Your task to perform on an android device: Clear the cart on ebay.com. Add asus zenbook to the cart on ebay.com Image 0: 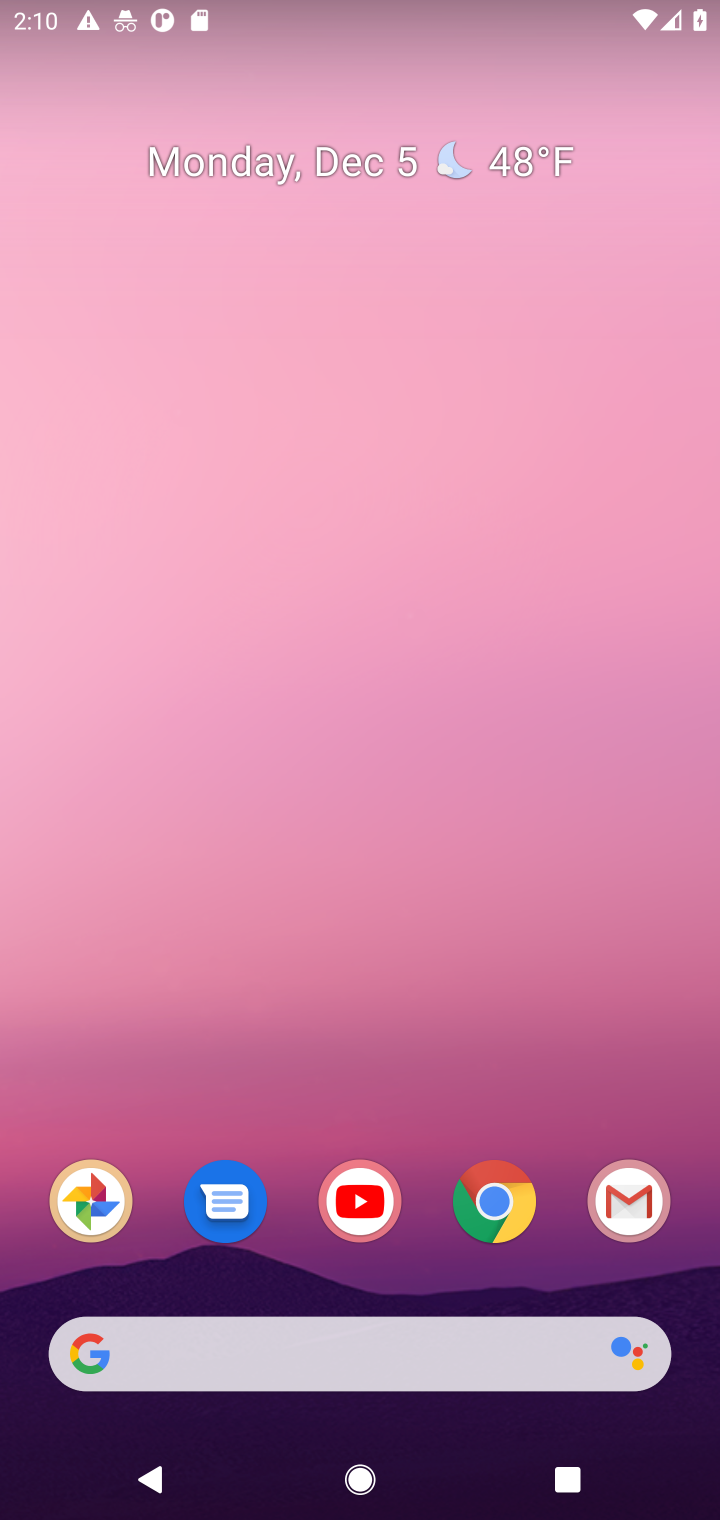
Step 0: click (506, 1212)
Your task to perform on an android device: Clear the cart on ebay.com. Add asus zenbook to the cart on ebay.com Image 1: 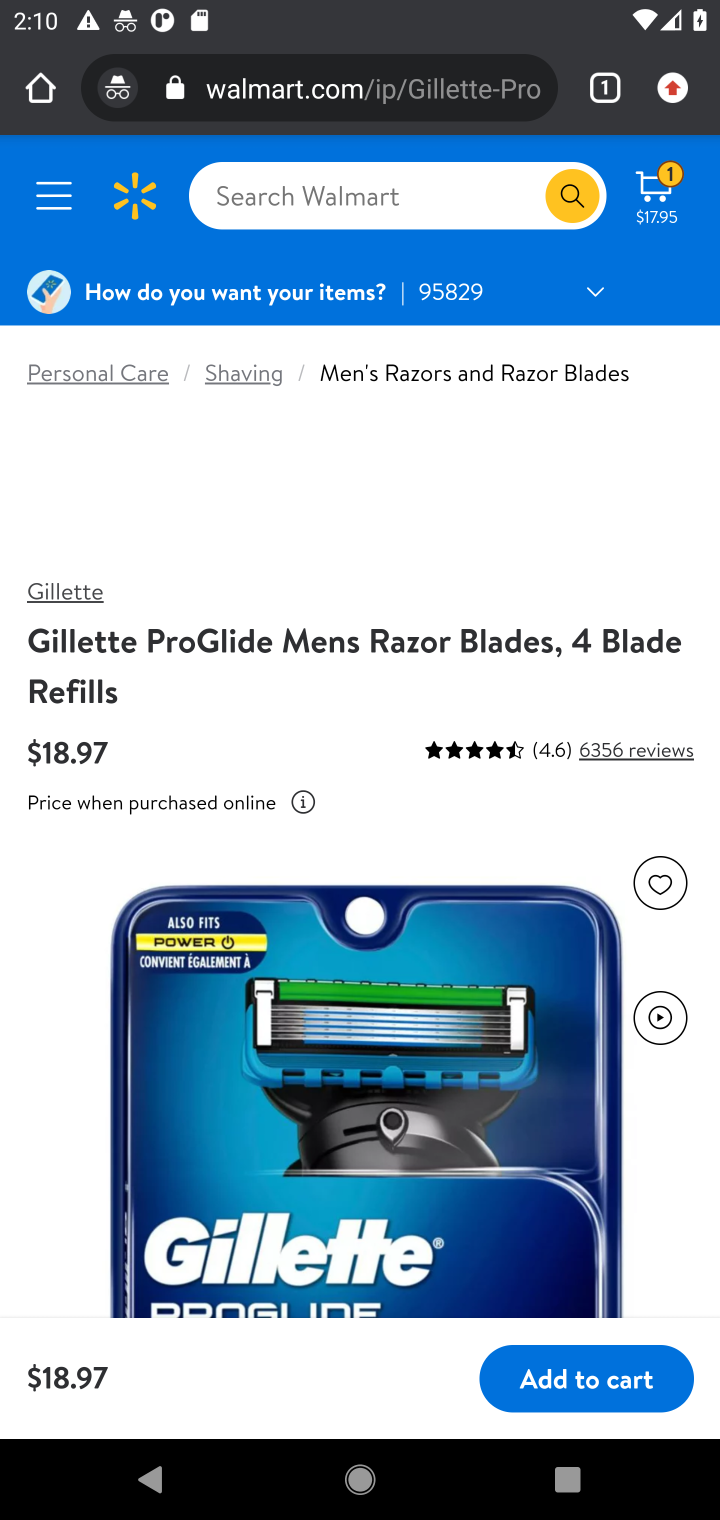
Step 1: click (393, 102)
Your task to perform on an android device: Clear the cart on ebay.com. Add asus zenbook to the cart on ebay.com Image 2: 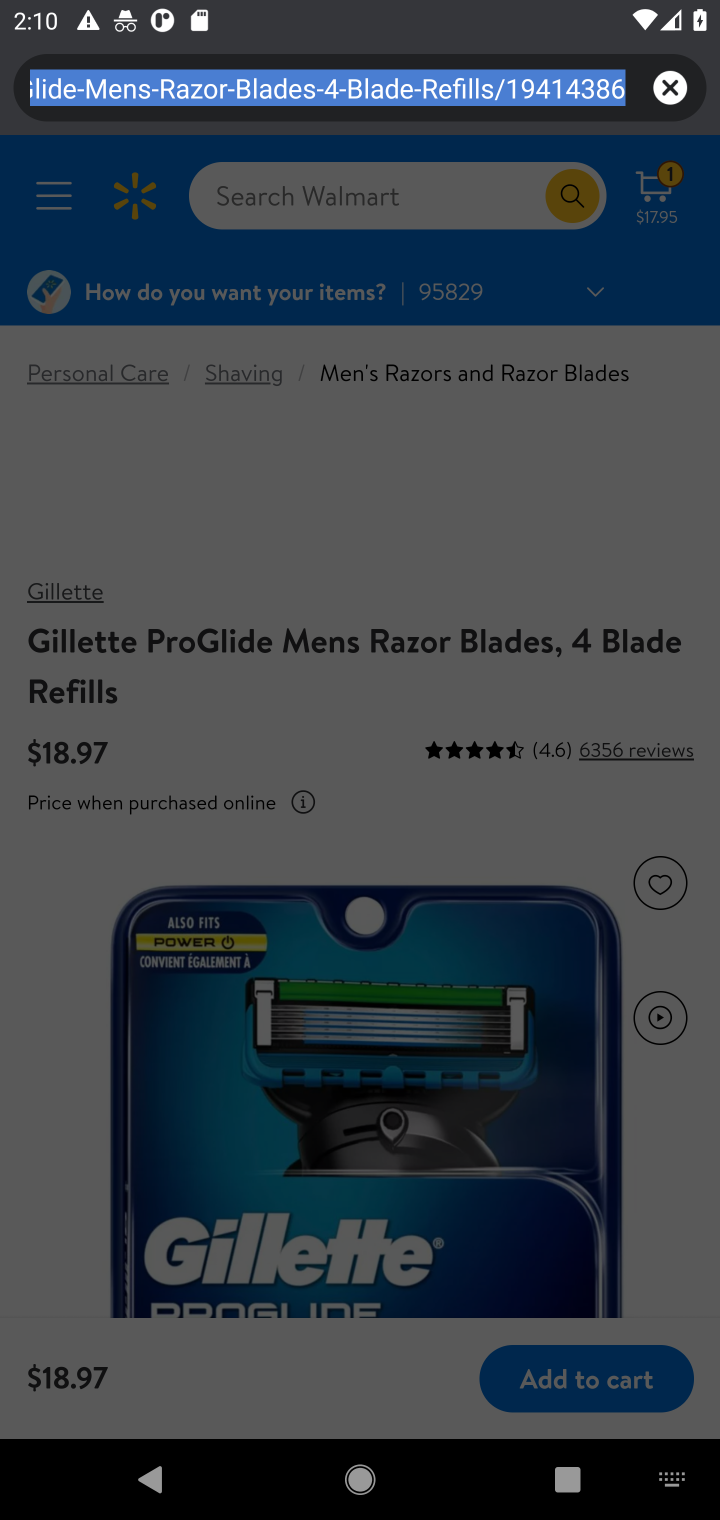
Step 2: click (675, 88)
Your task to perform on an android device: Clear the cart on ebay.com. Add asus zenbook to the cart on ebay.com Image 3: 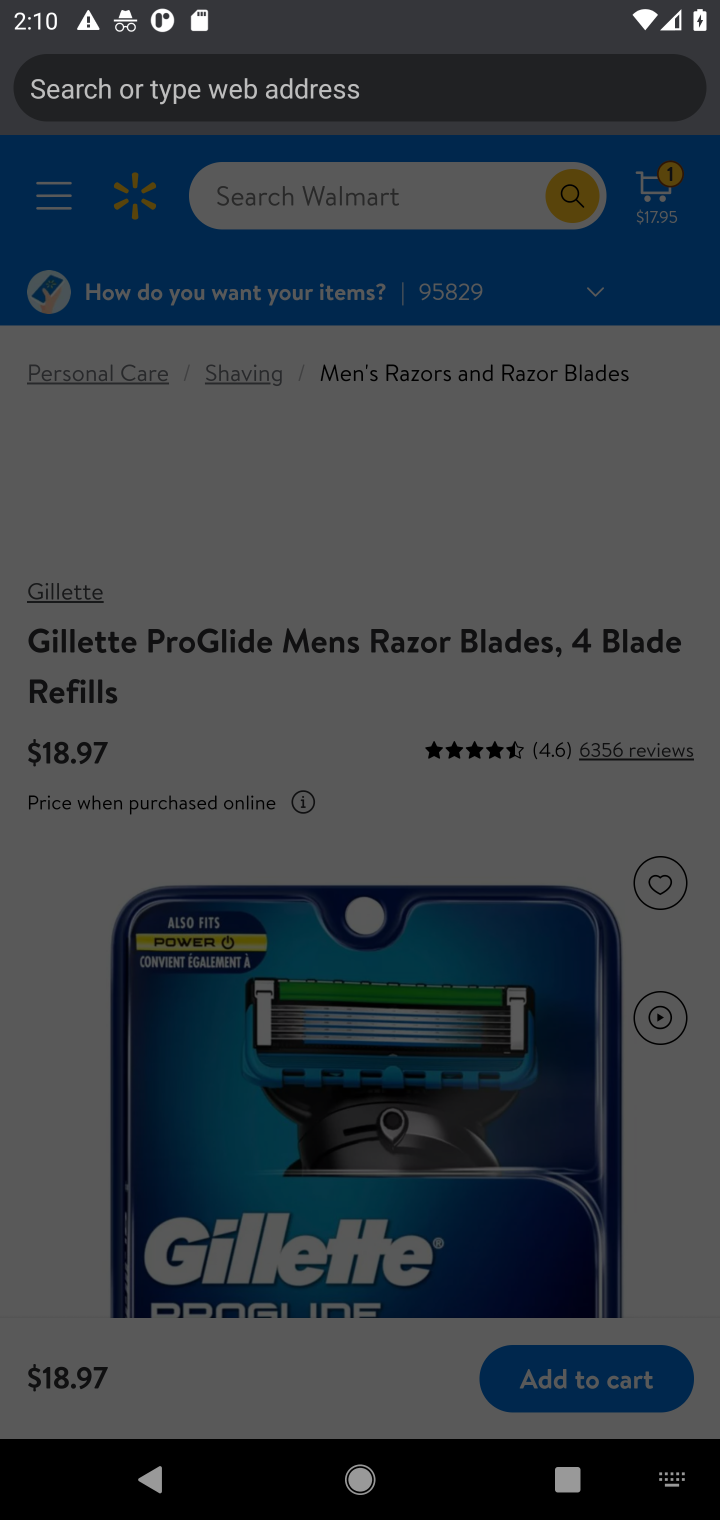
Step 3: type "ebay"
Your task to perform on an android device: Clear the cart on ebay.com. Add asus zenbook to the cart on ebay.com Image 4: 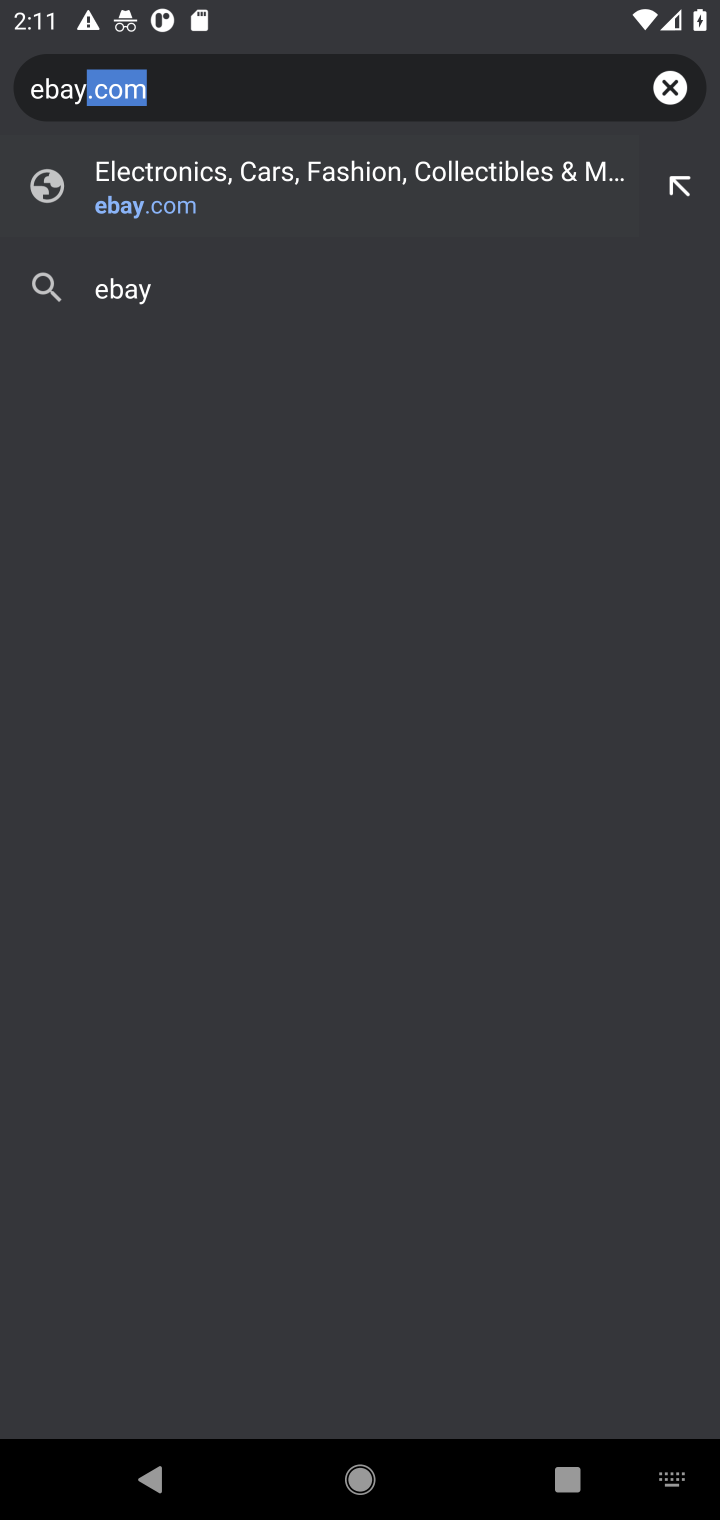
Step 4: click (324, 170)
Your task to perform on an android device: Clear the cart on ebay.com. Add asus zenbook to the cart on ebay.com Image 5: 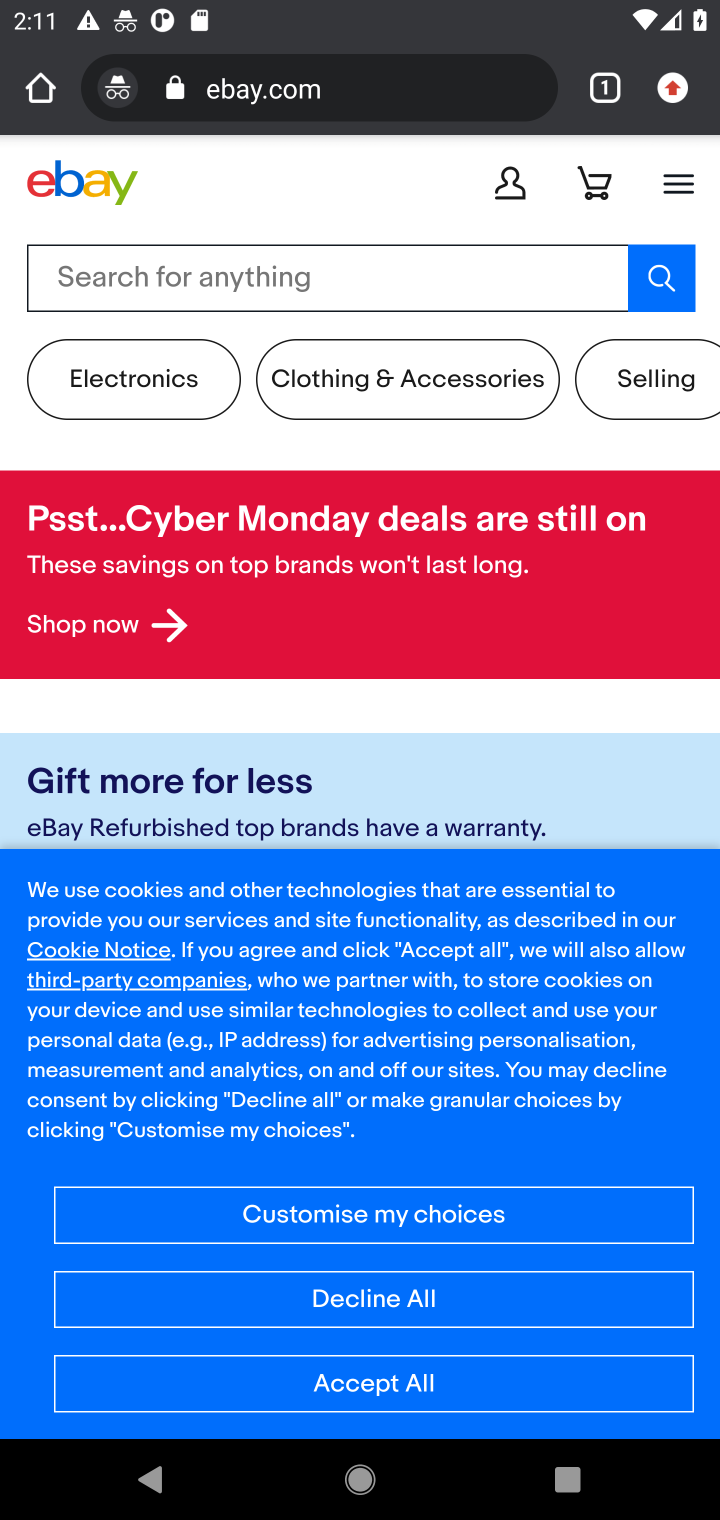
Step 5: click (574, 203)
Your task to perform on an android device: Clear the cart on ebay.com. Add asus zenbook to the cart on ebay.com Image 6: 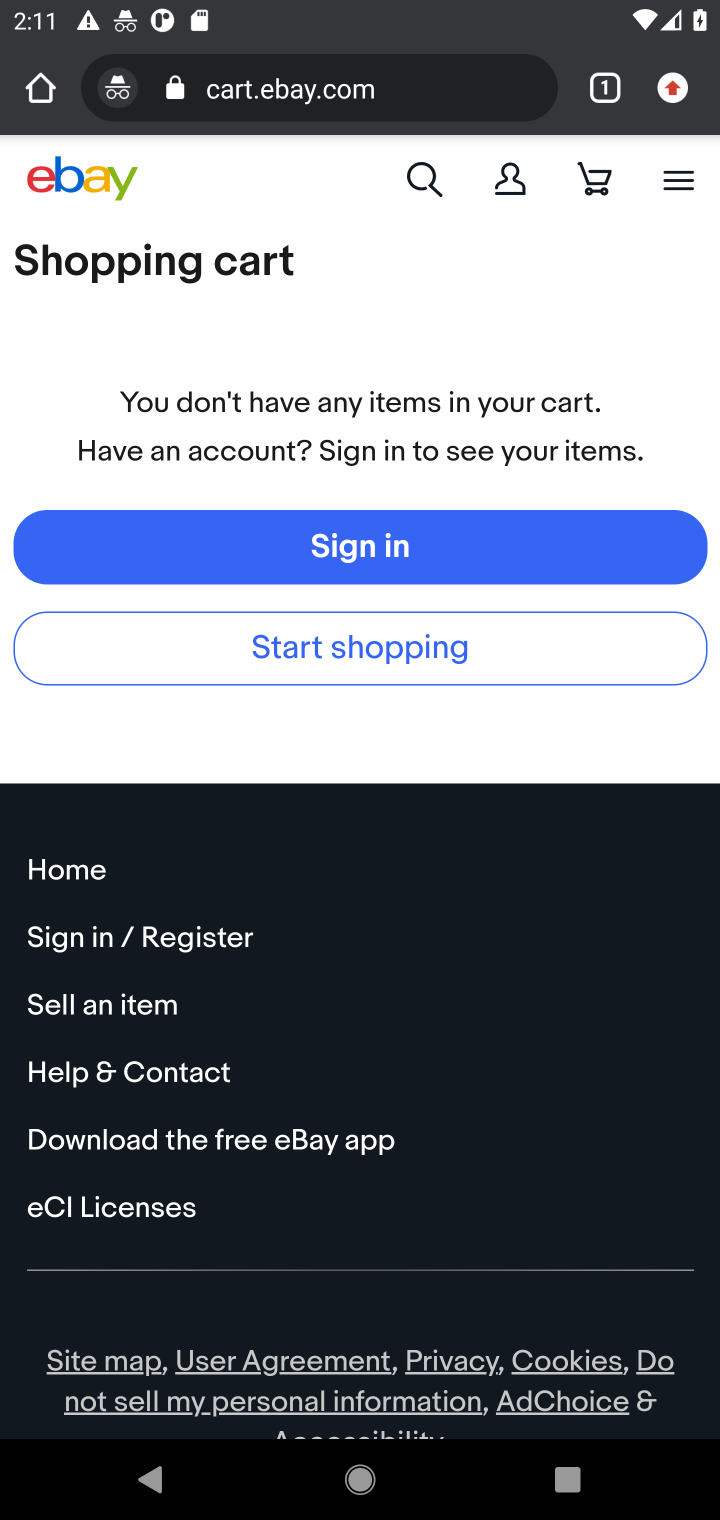
Step 6: click (446, 183)
Your task to perform on an android device: Clear the cart on ebay.com. Add asus zenbook to the cart on ebay.com Image 7: 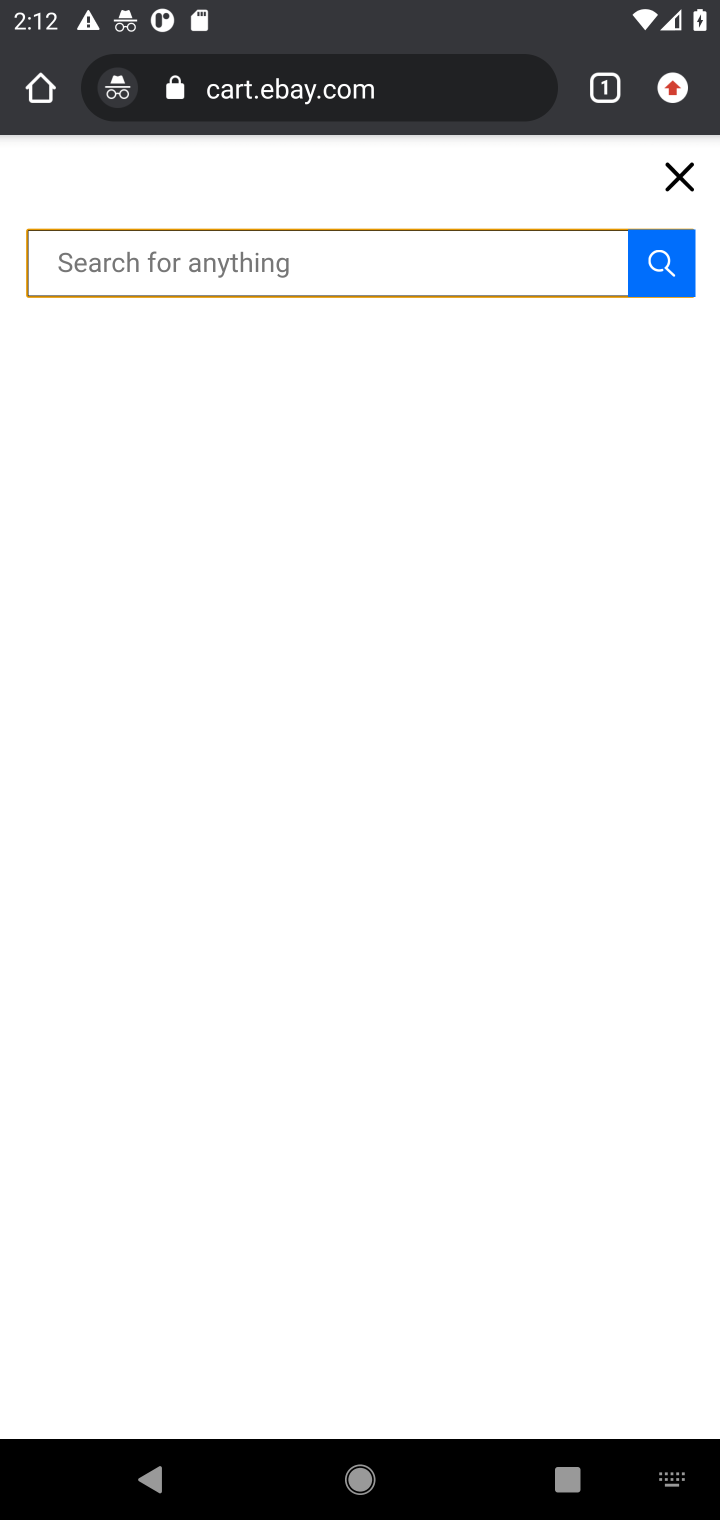
Step 7: type "asus zenbook"
Your task to perform on an android device: Clear the cart on ebay.com. Add asus zenbook to the cart on ebay.com Image 8: 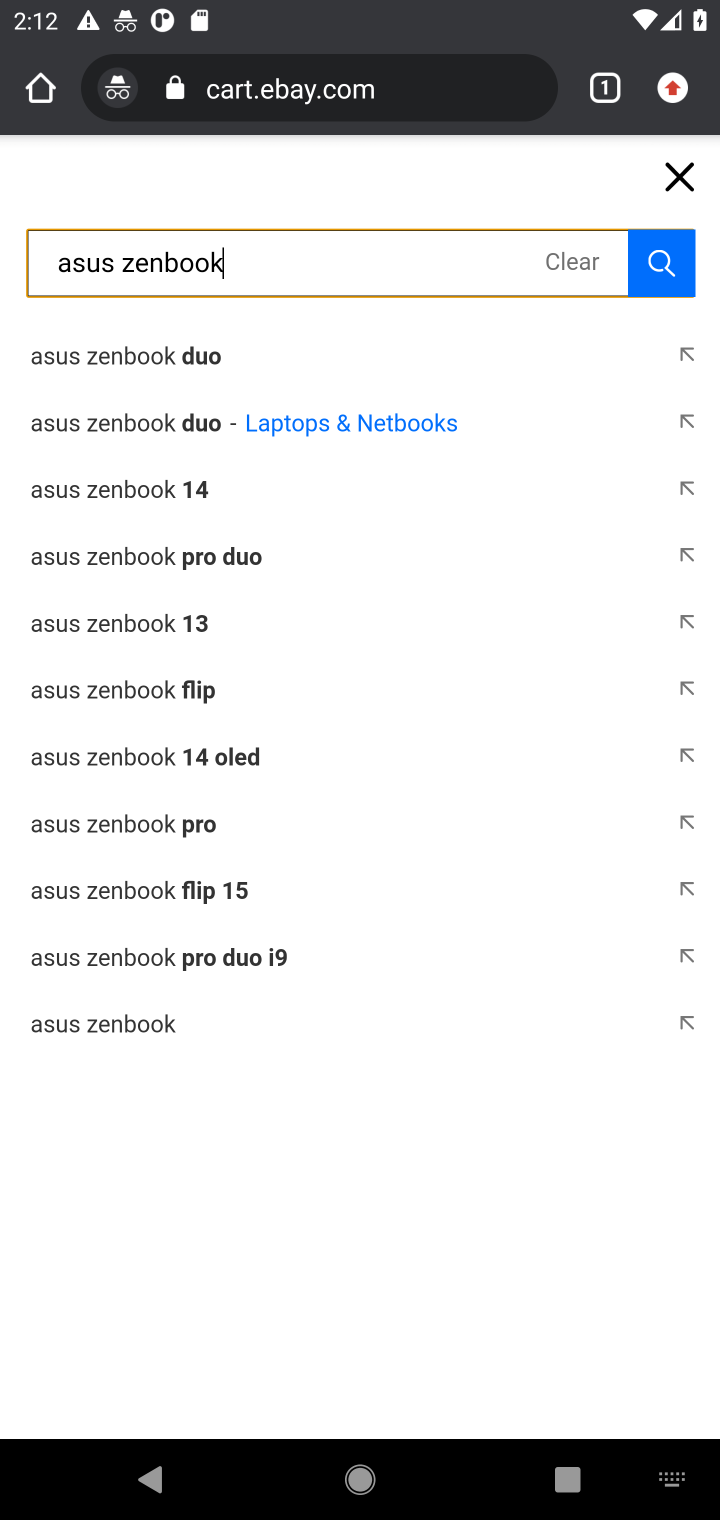
Step 8: click (680, 255)
Your task to perform on an android device: Clear the cart on ebay.com. Add asus zenbook to the cart on ebay.com Image 9: 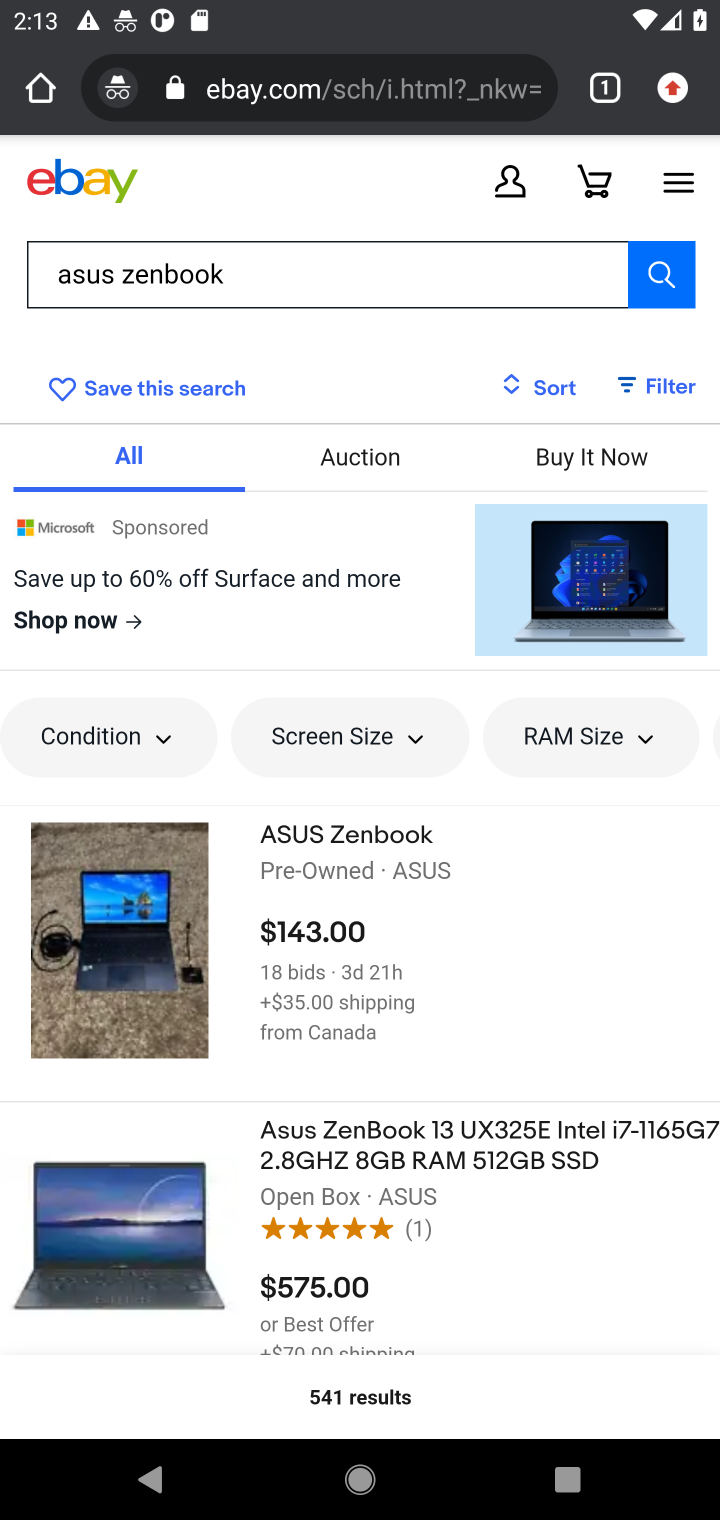
Step 9: click (207, 938)
Your task to perform on an android device: Clear the cart on ebay.com. Add asus zenbook to the cart on ebay.com Image 10: 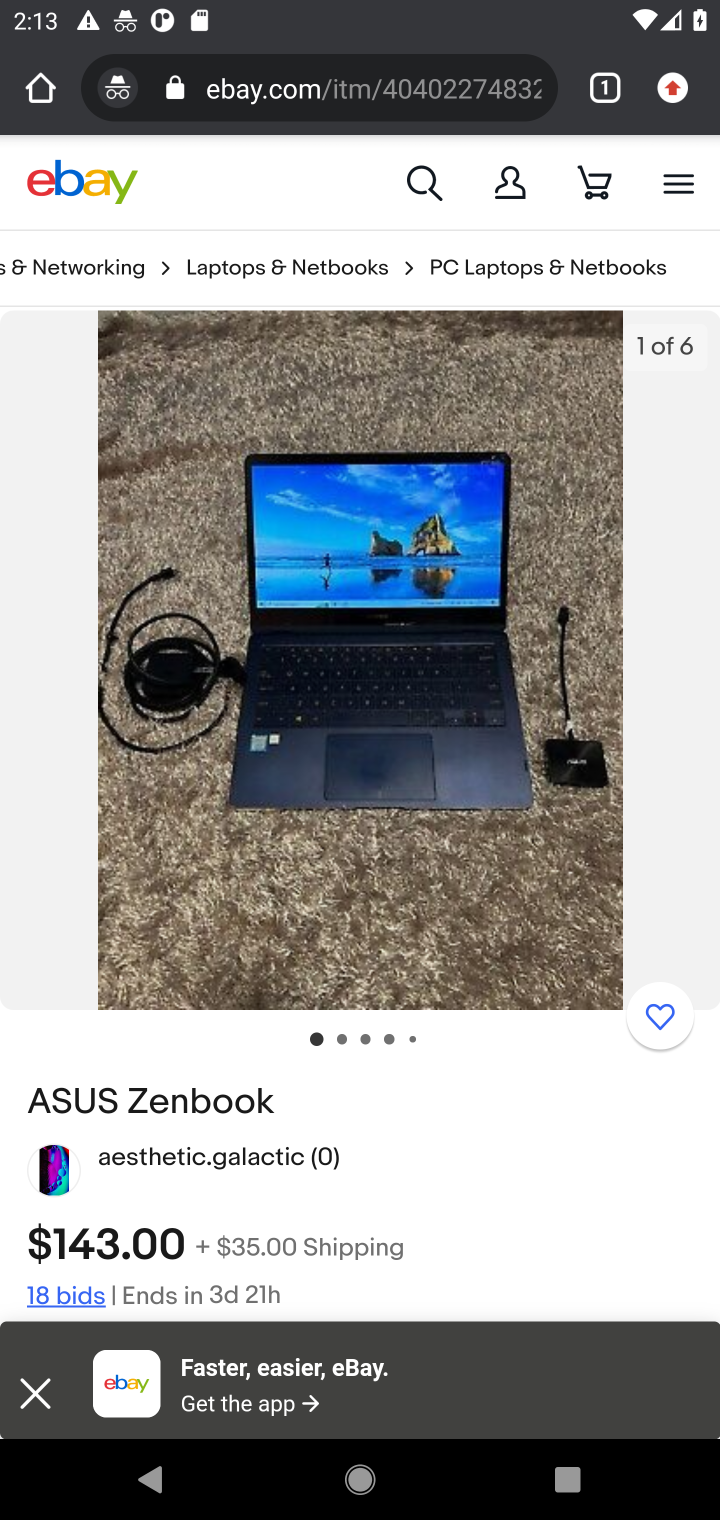
Step 10: drag from (563, 283) to (558, 210)
Your task to perform on an android device: Clear the cart on ebay.com. Add asus zenbook to the cart on ebay.com Image 11: 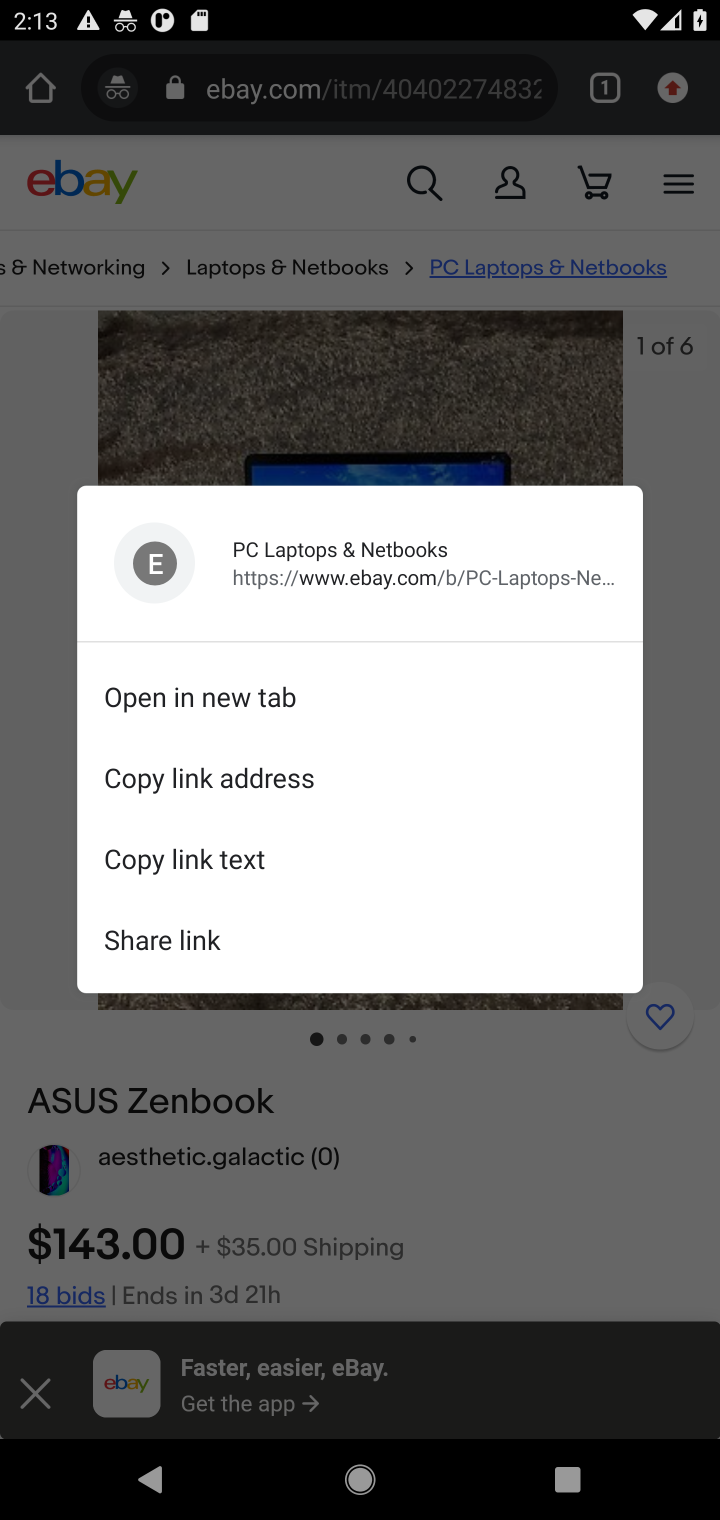
Step 11: click (496, 1188)
Your task to perform on an android device: Clear the cart on ebay.com. Add asus zenbook to the cart on ebay.com Image 12: 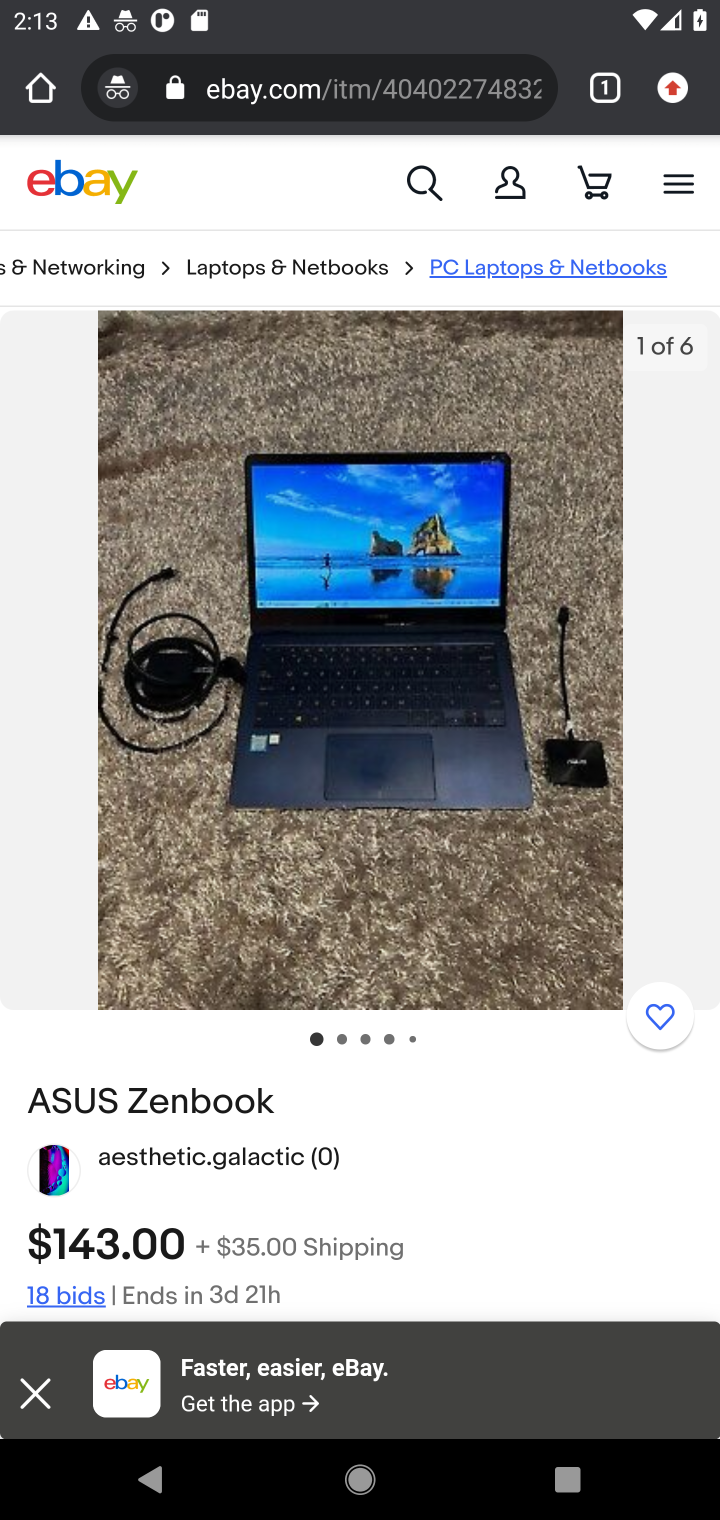
Step 12: task complete